Your task to perform on an android device: install app "Viber Messenger" Image 0: 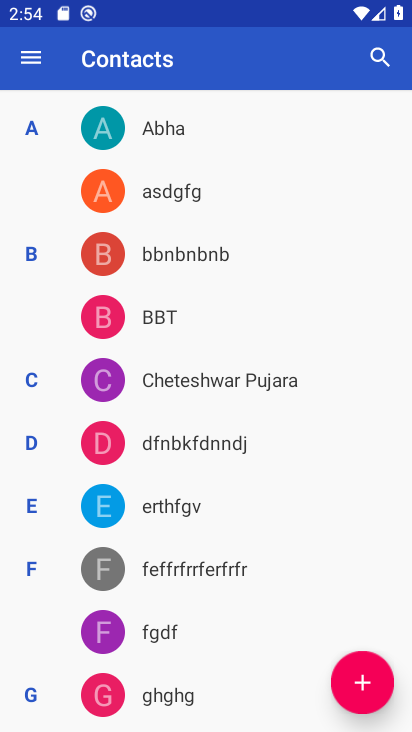
Step 0: press home button
Your task to perform on an android device: install app "Viber Messenger" Image 1: 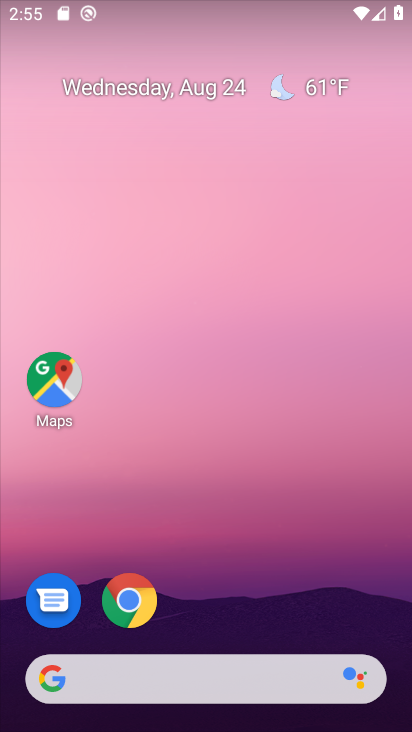
Step 1: drag from (194, 562) to (320, 66)
Your task to perform on an android device: install app "Viber Messenger" Image 2: 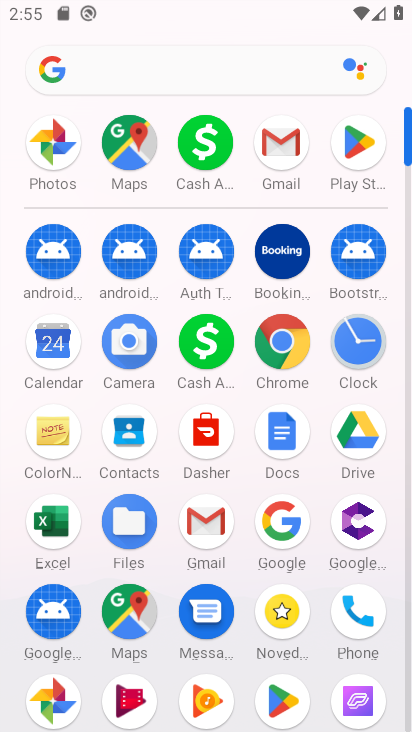
Step 2: click (348, 142)
Your task to perform on an android device: install app "Viber Messenger" Image 3: 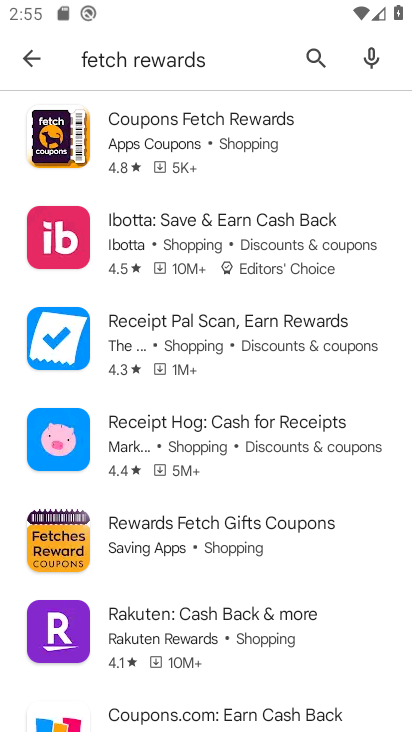
Step 3: click (315, 59)
Your task to perform on an android device: install app "Viber Messenger" Image 4: 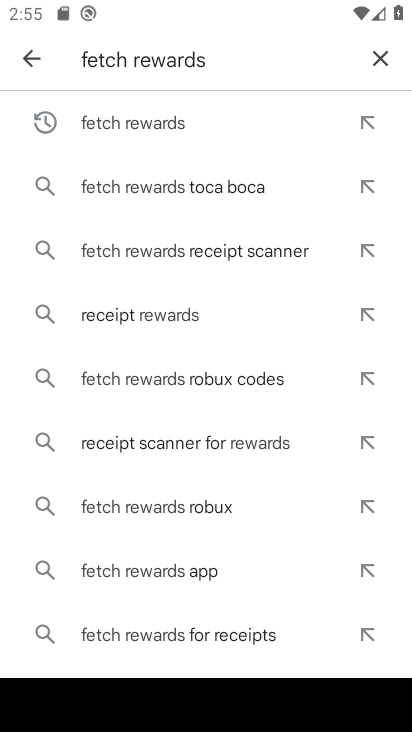
Step 4: click (378, 50)
Your task to perform on an android device: install app "Viber Messenger" Image 5: 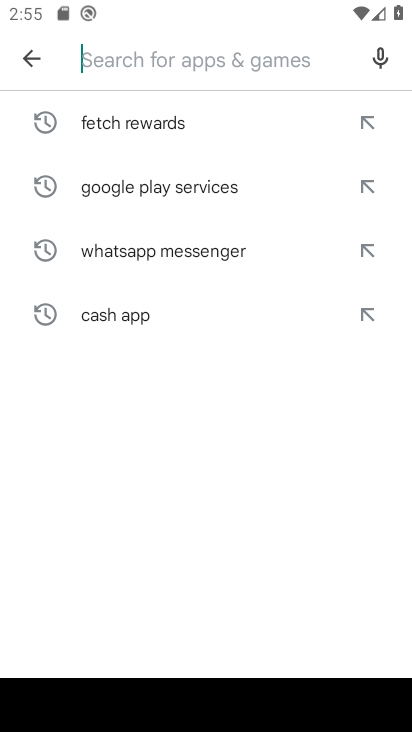
Step 5: click (129, 68)
Your task to perform on an android device: install app "Viber Messenger" Image 6: 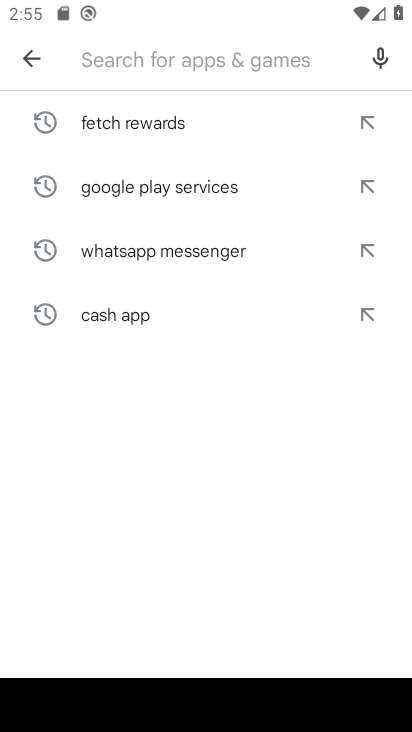
Step 6: type "Viber Messenger"
Your task to perform on an android device: install app "Viber Messenger" Image 7: 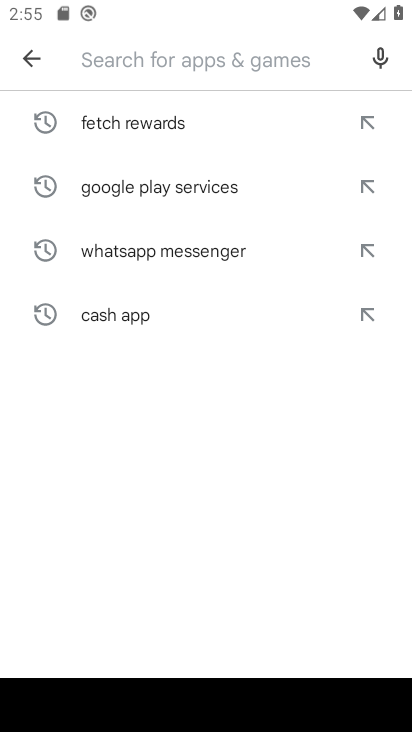
Step 7: click (176, 515)
Your task to perform on an android device: install app "Viber Messenger" Image 8: 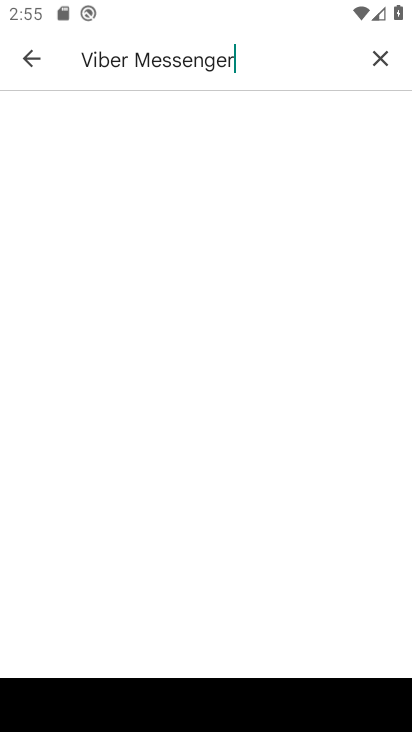
Step 8: task complete